Your task to perform on an android device: Go to privacy settings Image 0: 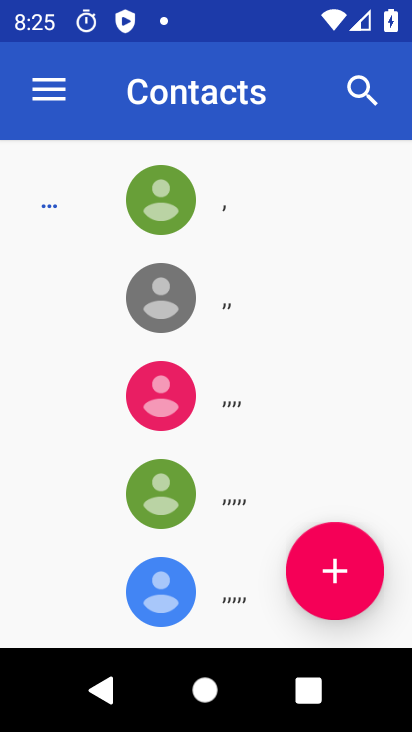
Step 0: press home button
Your task to perform on an android device: Go to privacy settings Image 1: 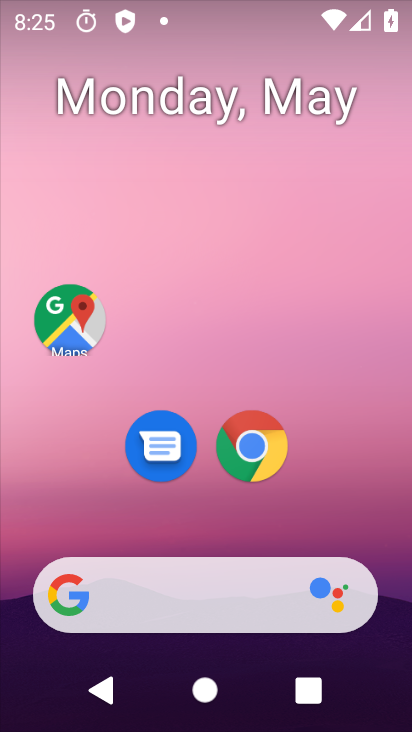
Step 1: drag from (378, 510) to (323, 5)
Your task to perform on an android device: Go to privacy settings Image 2: 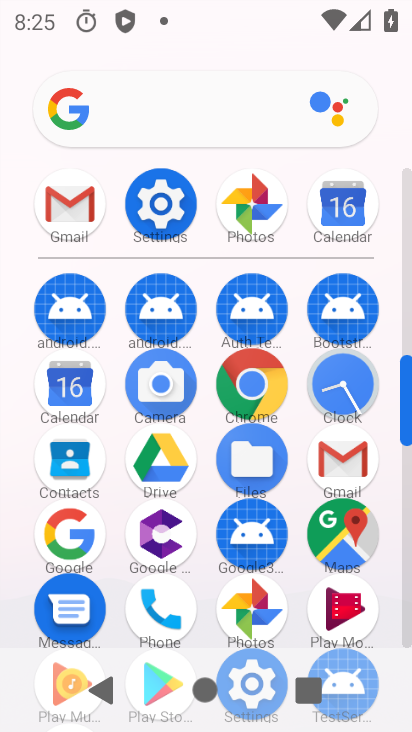
Step 2: click (170, 204)
Your task to perform on an android device: Go to privacy settings Image 3: 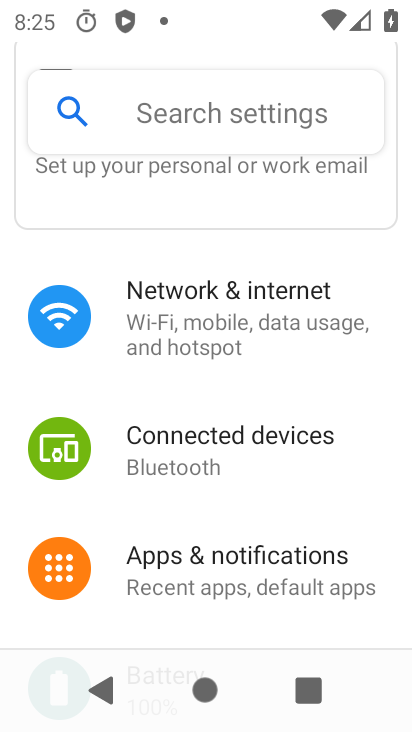
Step 3: drag from (347, 550) to (340, 145)
Your task to perform on an android device: Go to privacy settings Image 4: 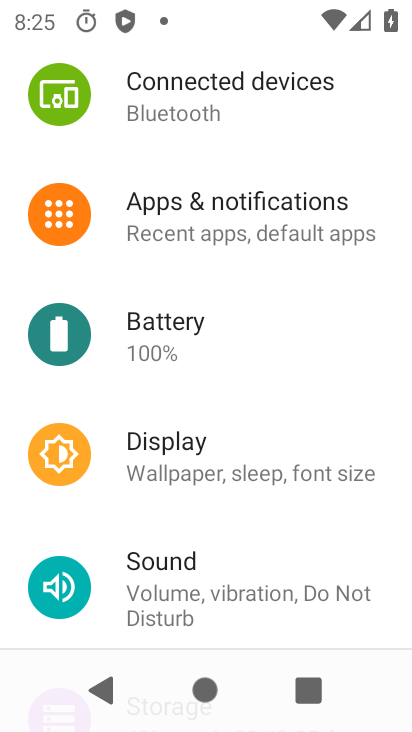
Step 4: drag from (219, 516) to (221, 123)
Your task to perform on an android device: Go to privacy settings Image 5: 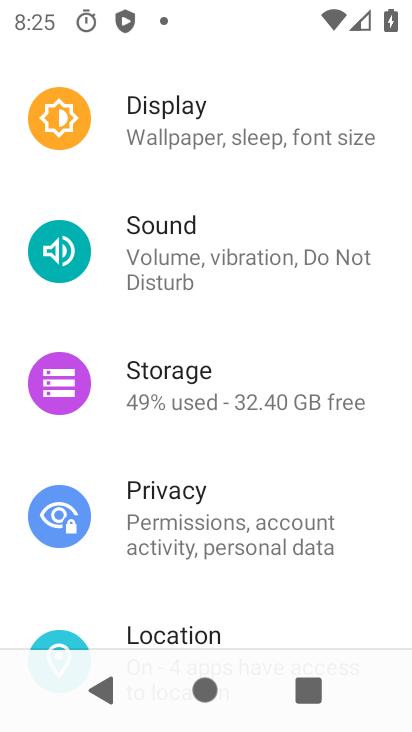
Step 5: click (161, 498)
Your task to perform on an android device: Go to privacy settings Image 6: 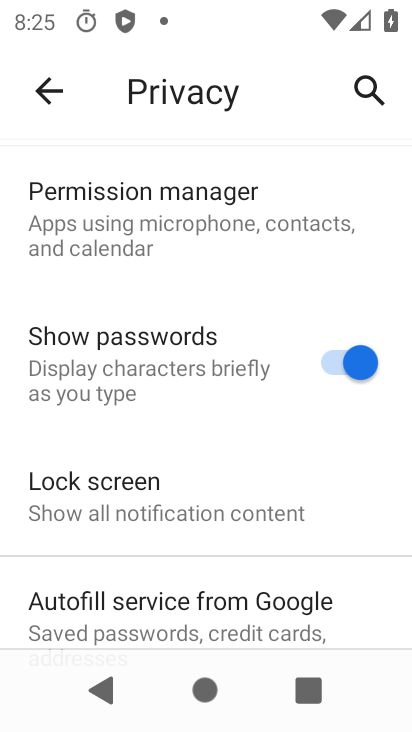
Step 6: task complete